Your task to perform on an android device: all mails in gmail Image 0: 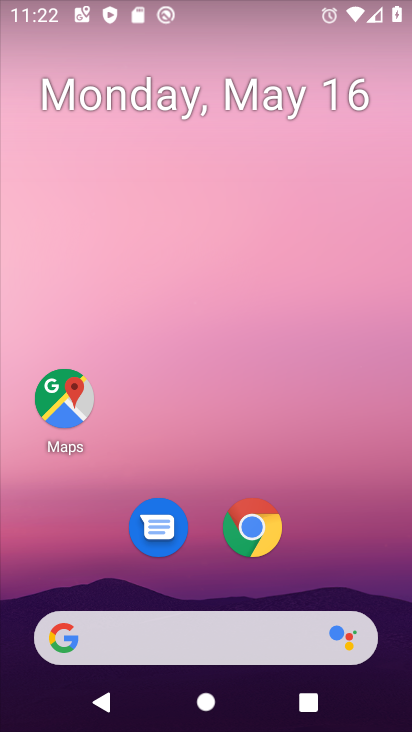
Step 0: drag from (324, 583) to (365, 16)
Your task to perform on an android device: all mails in gmail Image 1: 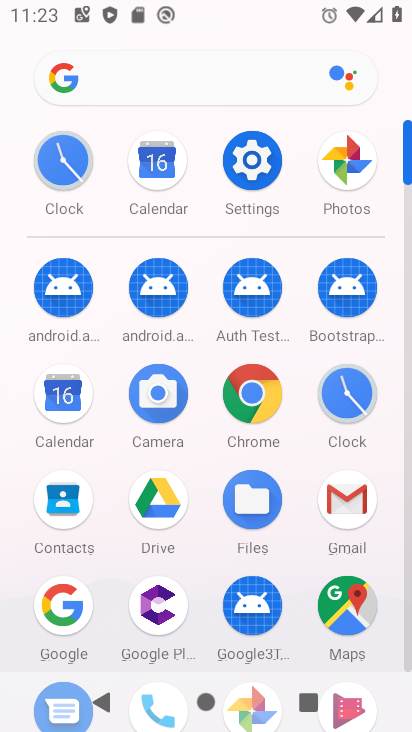
Step 1: click (338, 493)
Your task to perform on an android device: all mails in gmail Image 2: 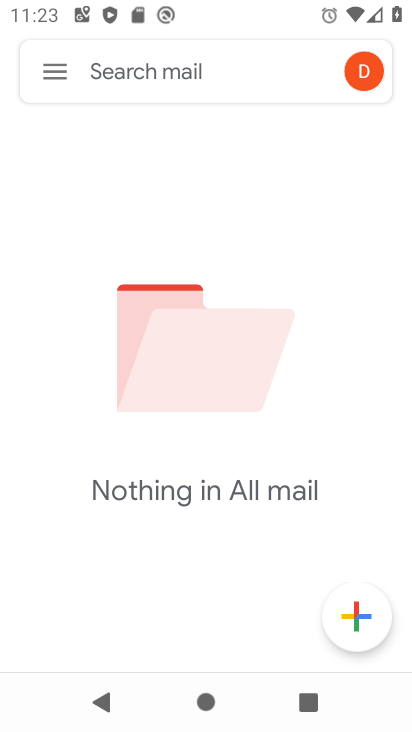
Step 2: task complete